Your task to perform on an android device: Open maps Image 0: 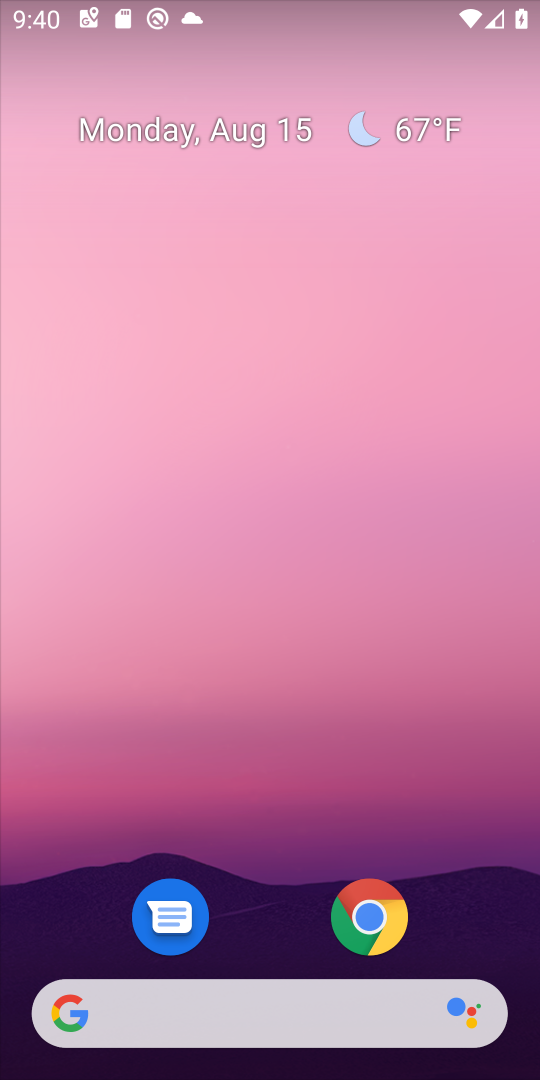
Step 0: drag from (267, 723) to (308, 3)
Your task to perform on an android device: Open maps Image 1: 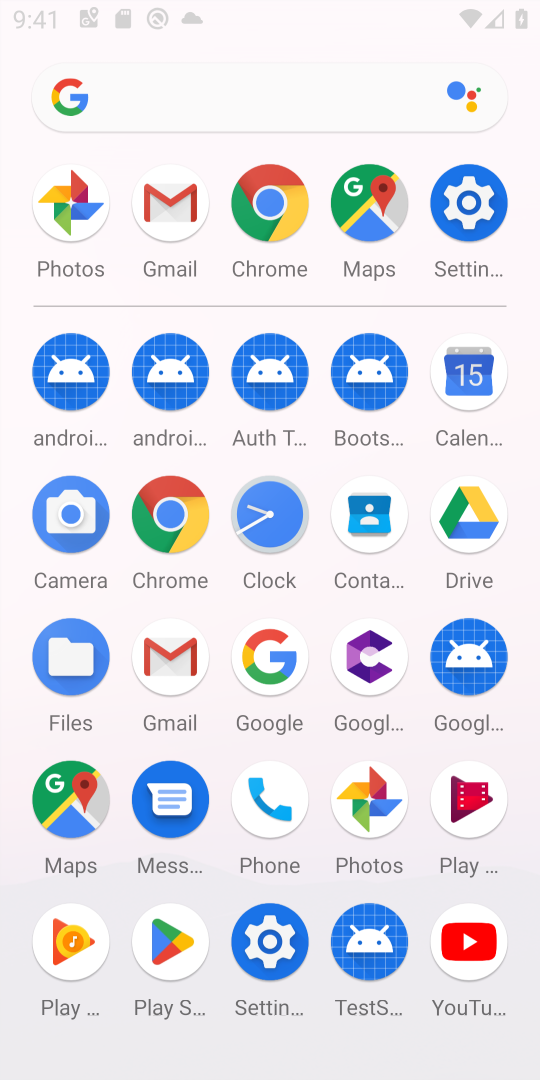
Step 1: drag from (347, 691) to (355, 39)
Your task to perform on an android device: Open maps Image 2: 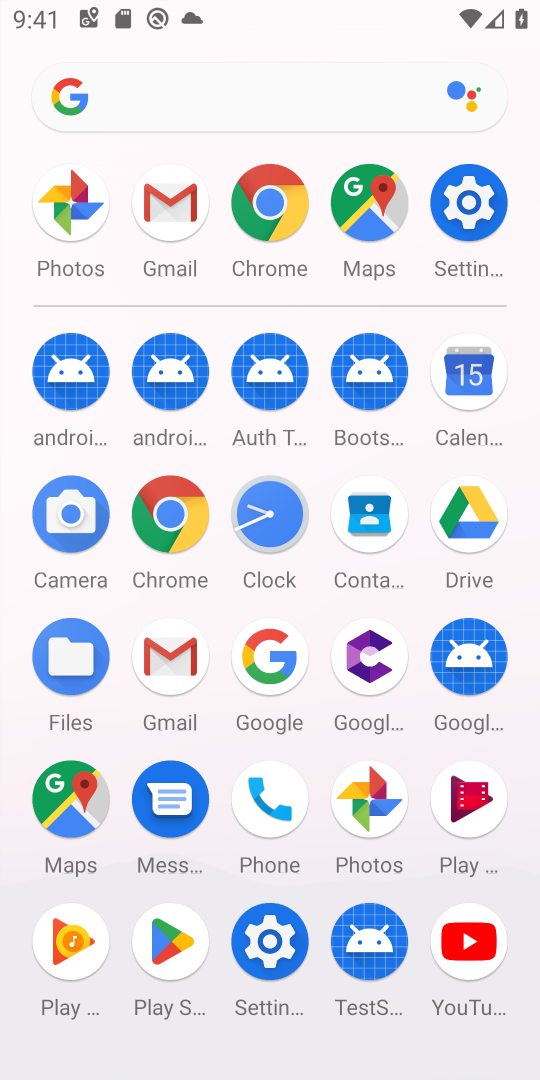
Step 2: click (374, 205)
Your task to perform on an android device: Open maps Image 3: 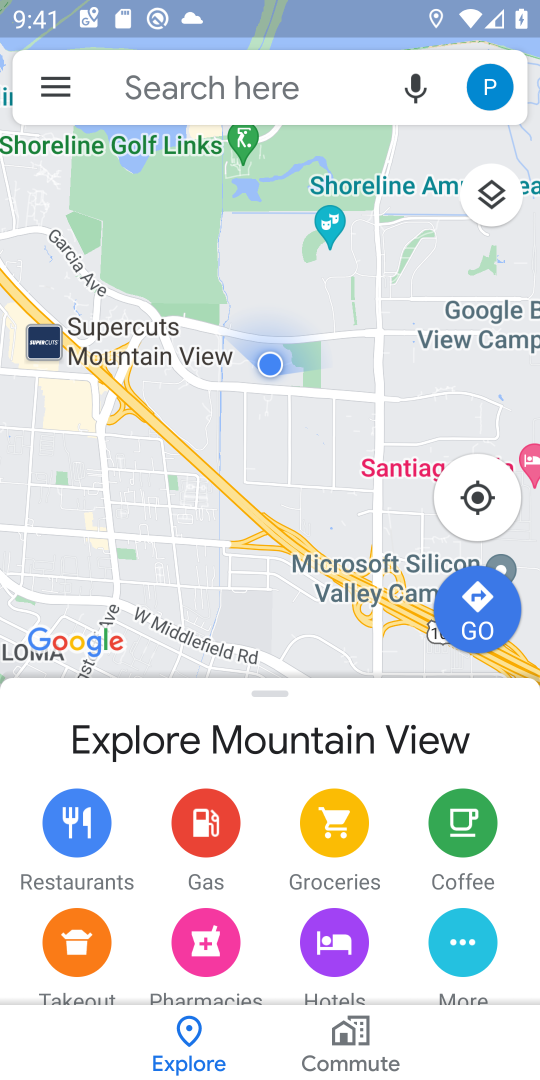
Step 3: task complete